Your task to perform on an android device: Open Youtube and go to "Your channel" Image 0: 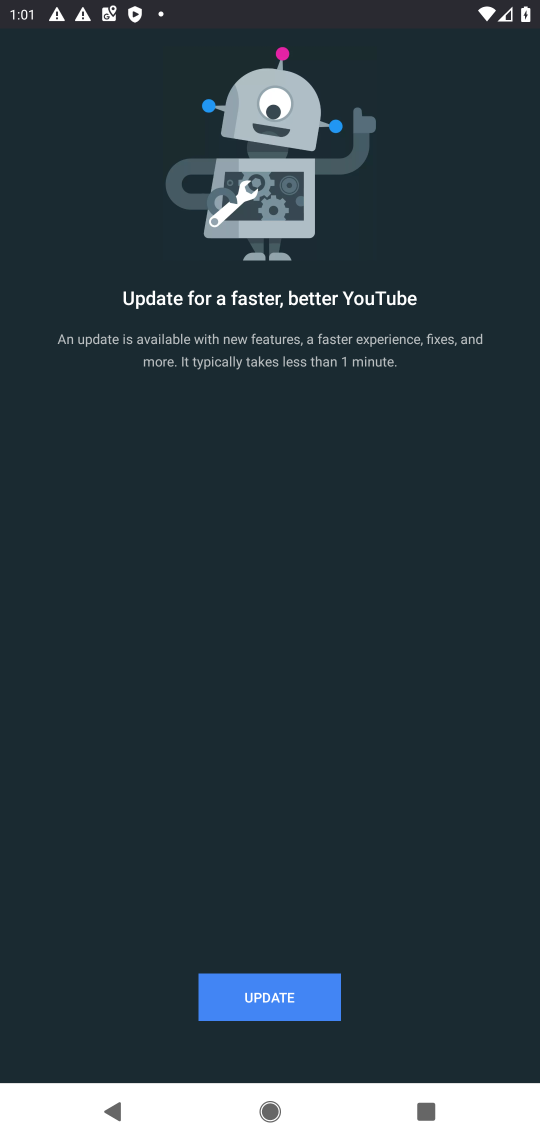
Step 0: click (265, 995)
Your task to perform on an android device: Open Youtube and go to "Your channel" Image 1: 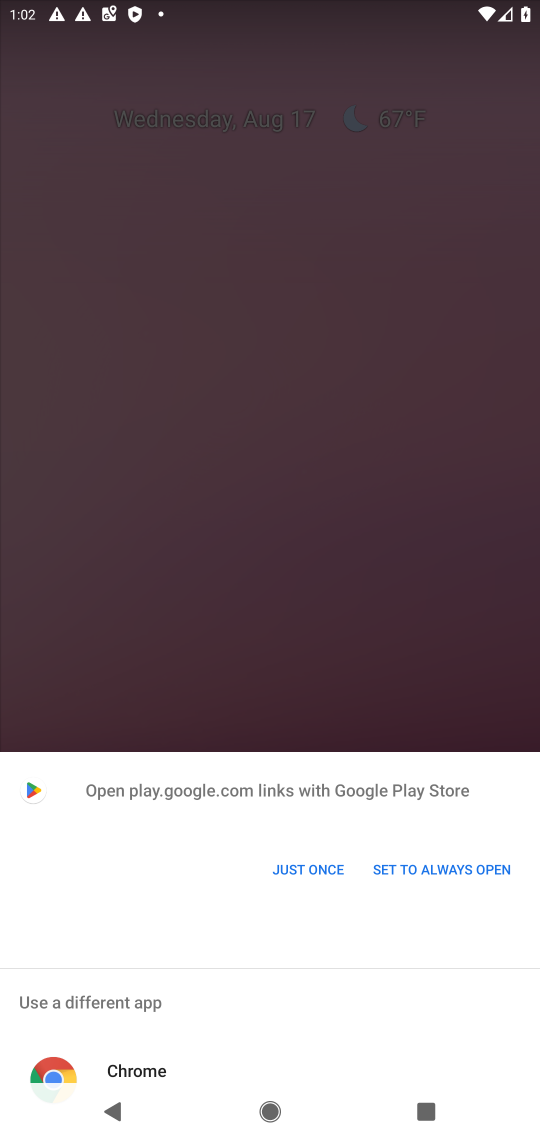
Step 1: click (281, 858)
Your task to perform on an android device: Open Youtube and go to "Your channel" Image 2: 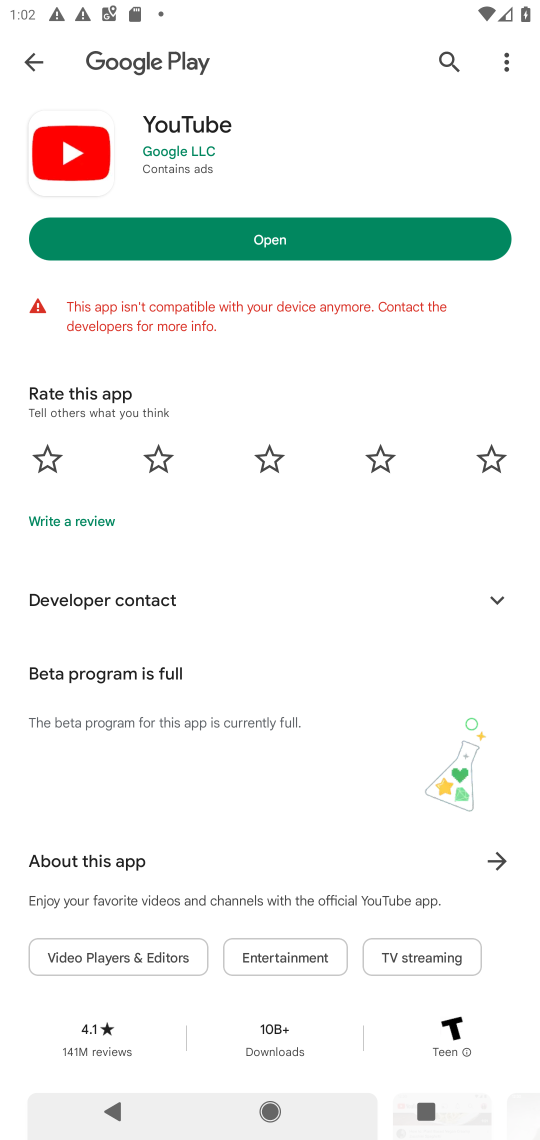
Step 2: click (303, 240)
Your task to perform on an android device: Open Youtube and go to "Your channel" Image 3: 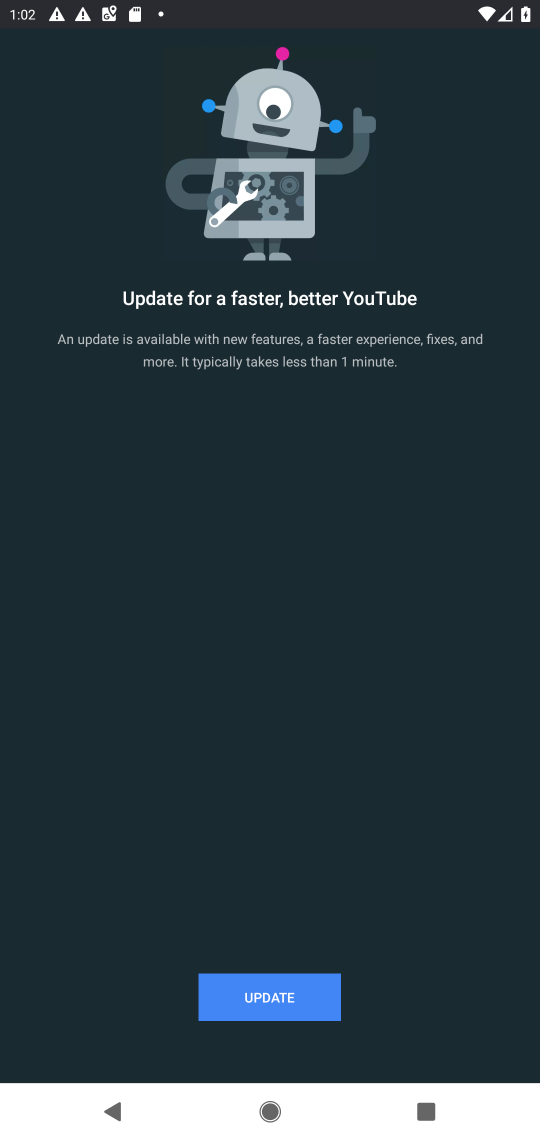
Step 3: click (294, 1011)
Your task to perform on an android device: Open Youtube and go to "Your channel" Image 4: 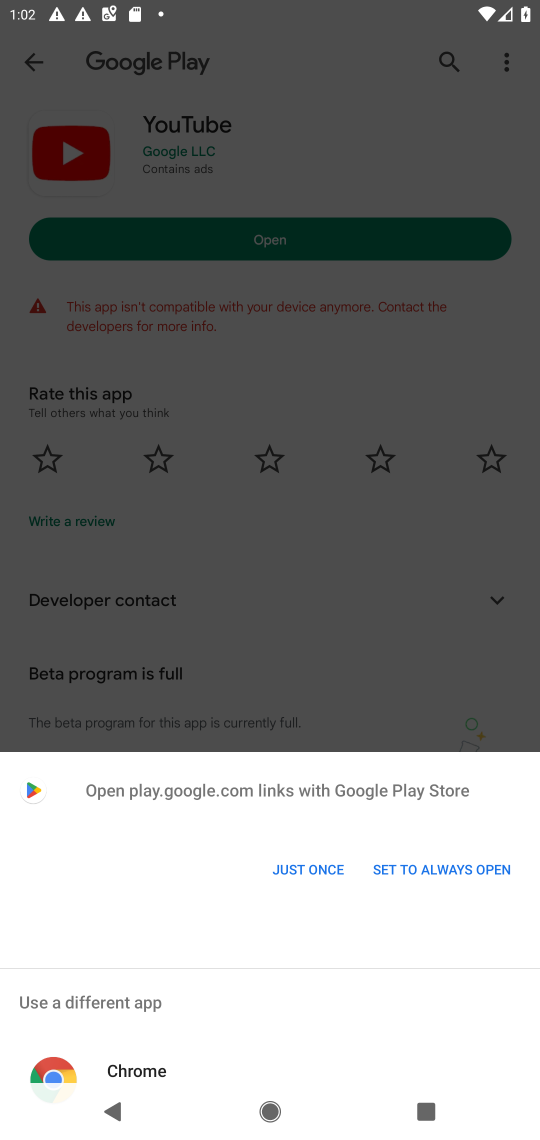
Step 4: click (338, 859)
Your task to perform on an android device: Open Youtube and go to "Your channel" Image 5: 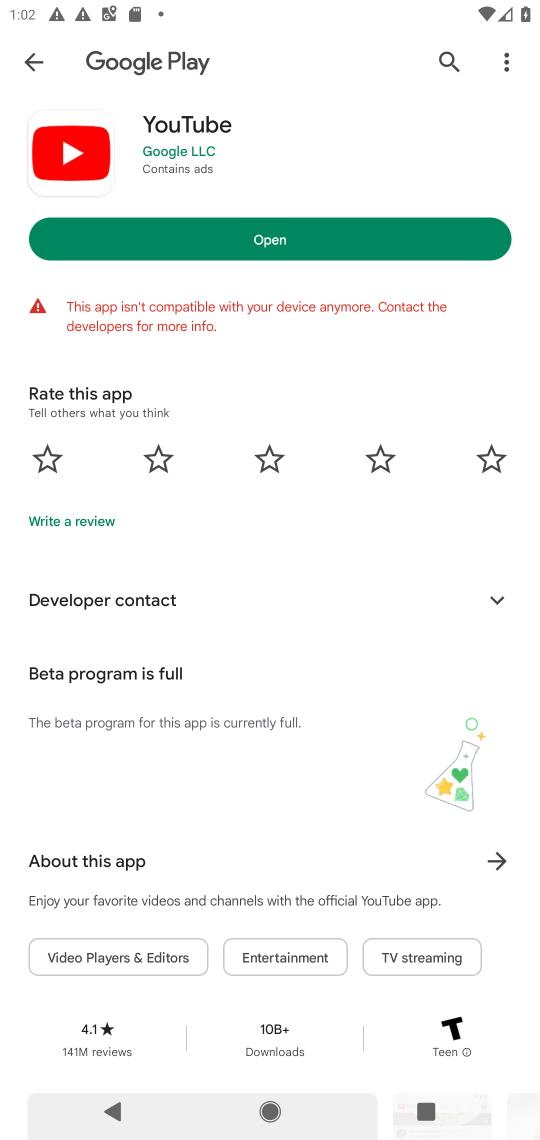
Step 5: task complete